Your task to perform on an android device: turn off wifi Image 0: 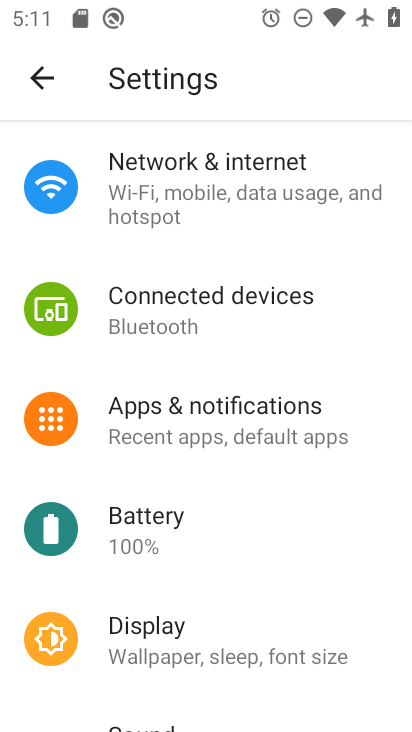
Step 0: click (157, 166)
Your task to perform on an android device: turn off wifi Image 1: 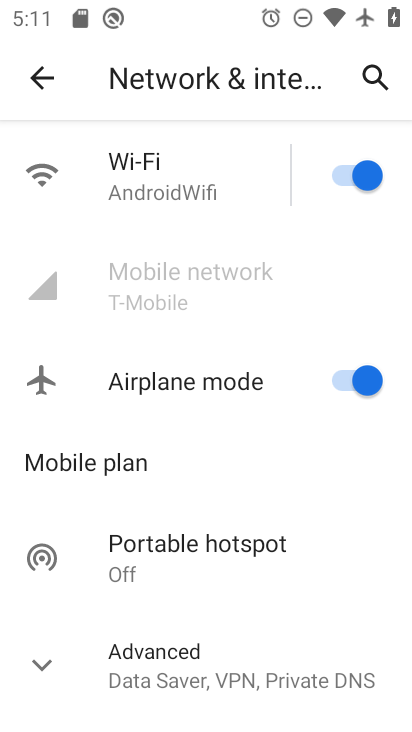
Step 1: click (195, 153)
Your task to perform on an android device: turn off wifi Image 2: 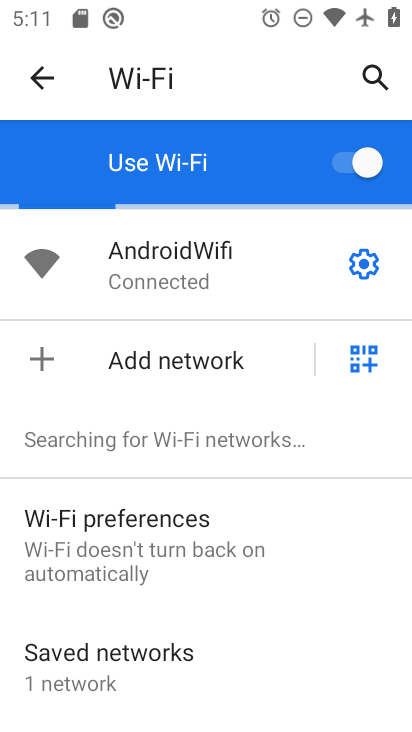
Step 2: click (351, 167)
Your task to perform on an android device: turn off wifi Image 3: 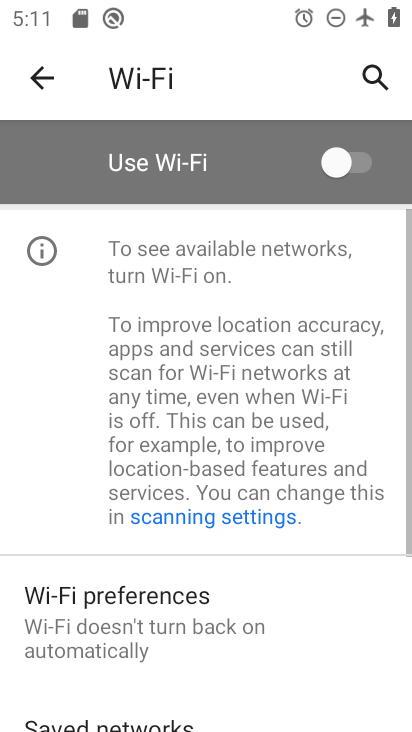
Step 3: task complete